Your task to perform on an android device: When is my next appointment? Image 0: 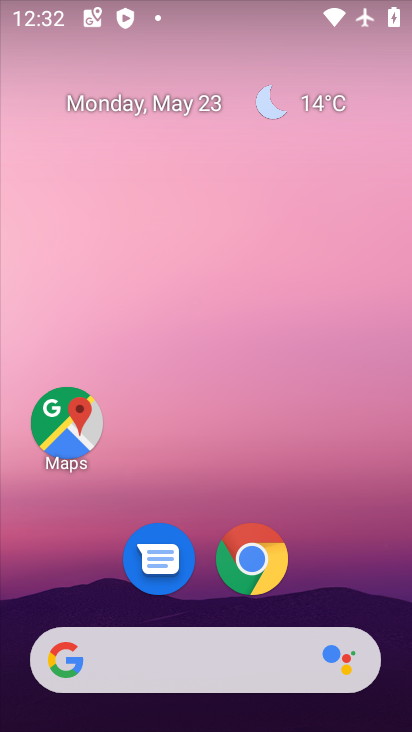
Step 0: drag from (342, 603) to (393, 0)
Your task to perform on an android device: When is my next appointment? Image 1: 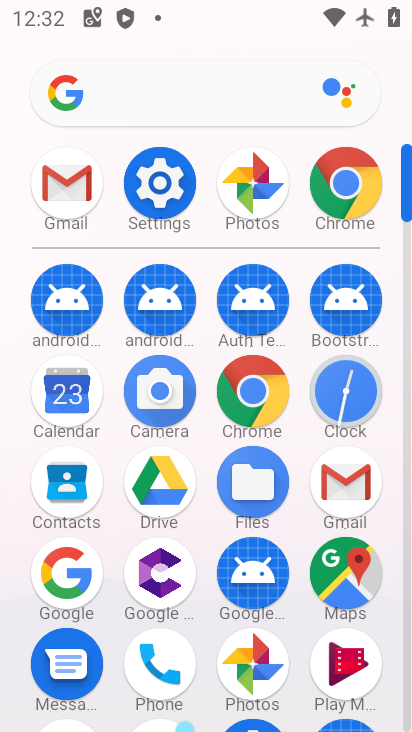
Step 1: click (66, 398)
Your task to perform on an android device: When is my next appointment? Image 2: 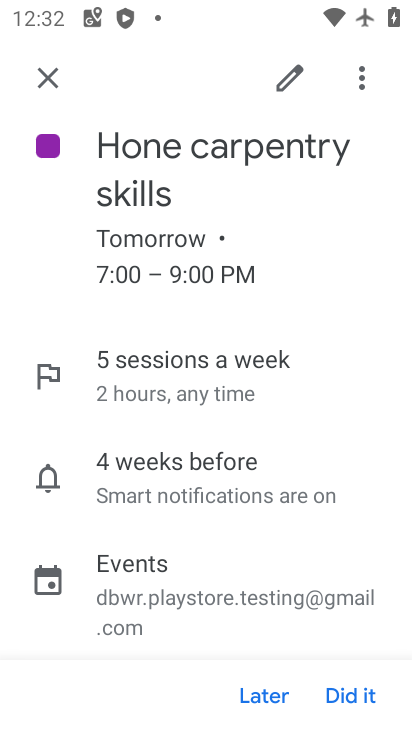
Step 2: click (51, 82)
Your task to perform on an android device: When is my next appointment? Image 3: 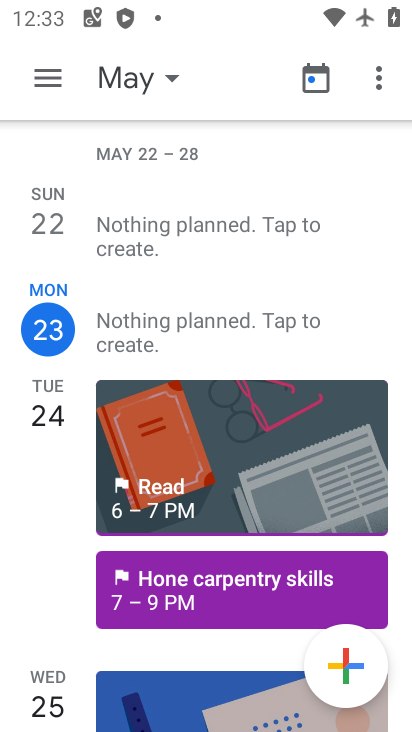
Step 3: click (209, 591)
Your task to perform on an android device: When is my next appointment? Image 4: 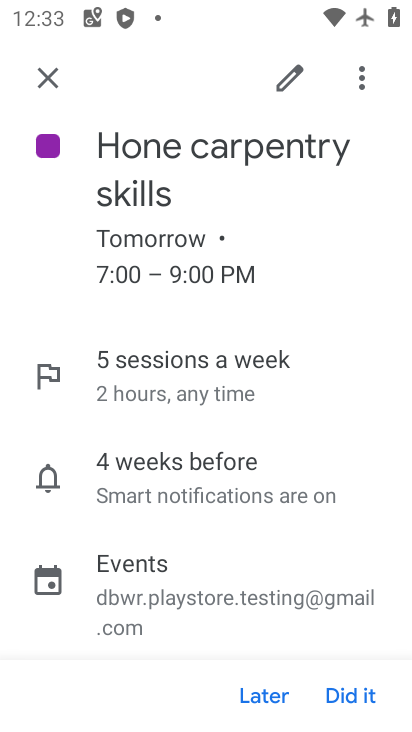
Step 4: task complete